Your task to perform on an android device: turn notification dots on Image 0: 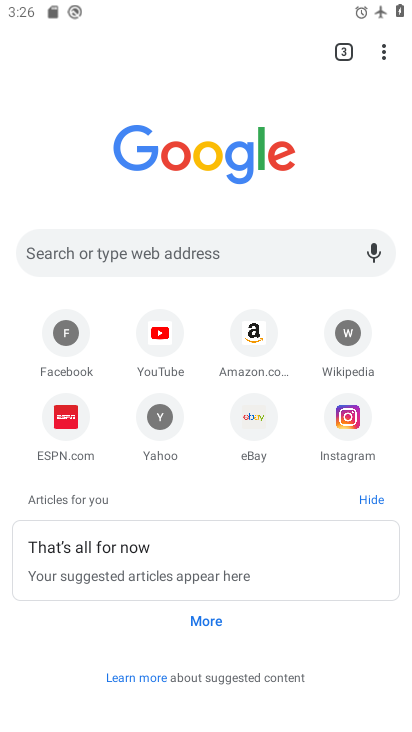
Step 0: press home button
Your task to perform on an android device: turn notification dots on Image 1: 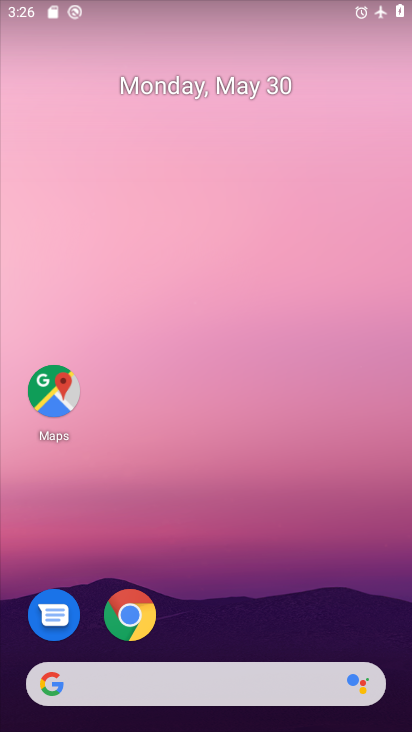
Step 1: drag from (241, 601) to (311, 8)
Your task to perform on an android device: turn notification dots on Image 2: 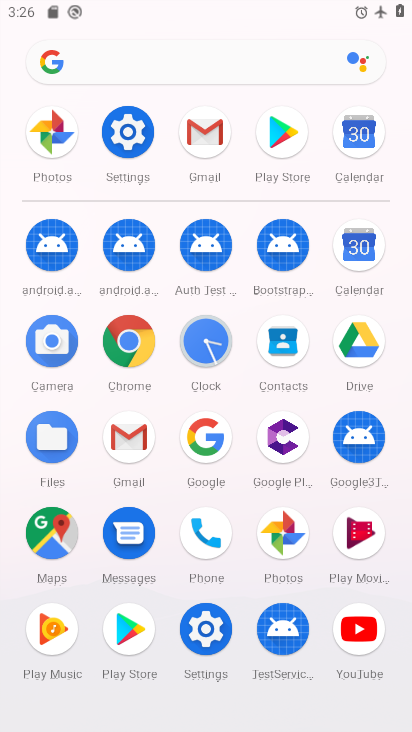
Step 2: click (136, 115)
Your task to perform on an android device: turn notification dots on Image 3: 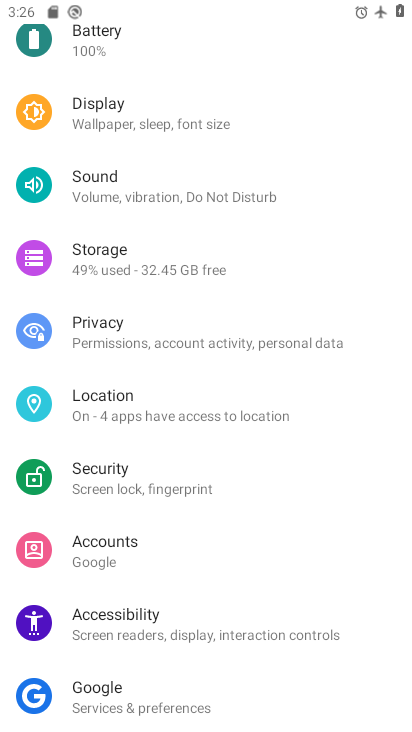
Step 3: drag from (178, 330) to (218, 591)
Your task to perform on an android device: turn notification dots on Image 4: 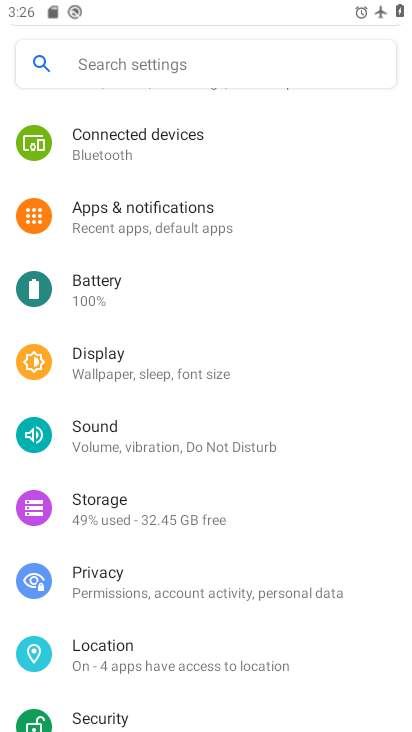
Step 4: click (208, 203)
Your task to perform on an android device: turn notification dots on Image 5: 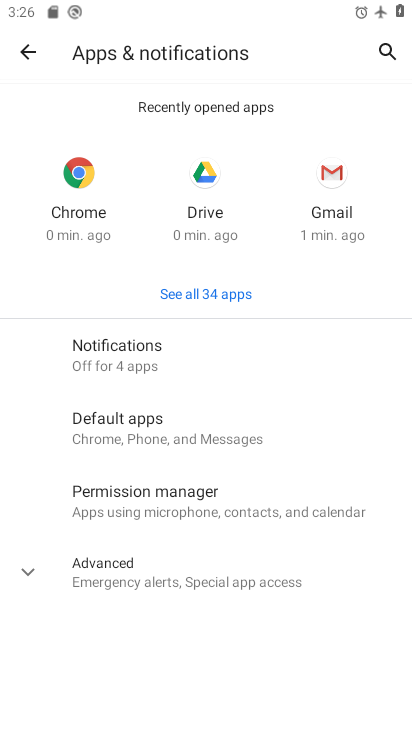
Step 5: click (181, 326)
Your task to perform on an android device: turn notification dots on Image 6: 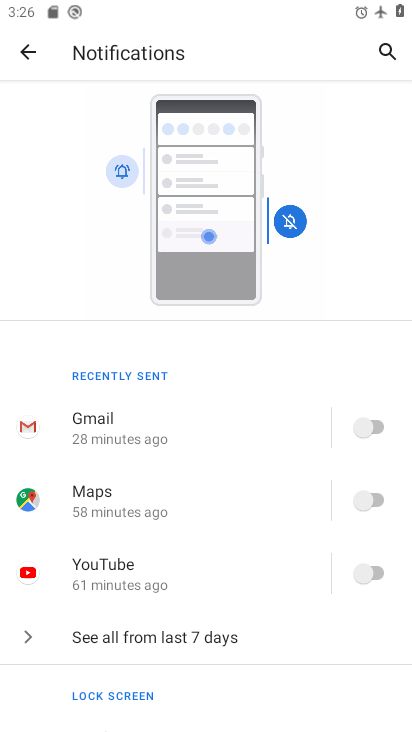
Step 6: drag from (270, 587) to (249, 334)
Your task to perform on an android device: turn notification dots on Image 7: 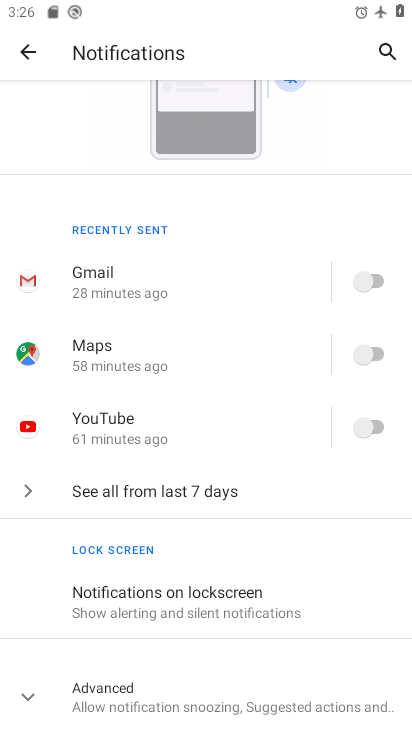
Step 7: click (30, 690)
Your task to perform on an android device: turn notification dots on Image 8: 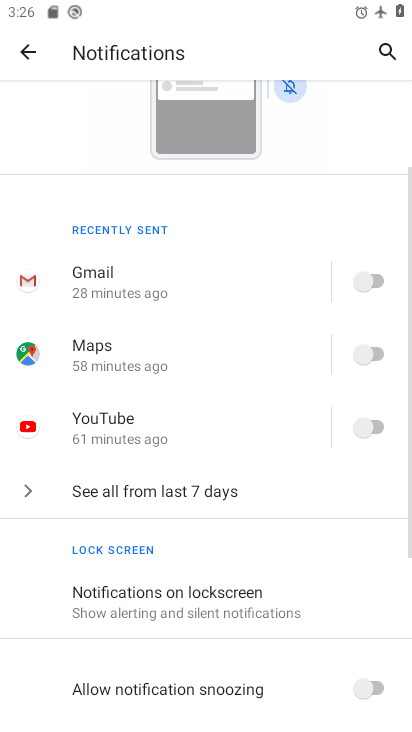
Step 8: drag from (223, 572) to (230, 234)
Your task to perform on an android device: turn notification dots on Image 9: 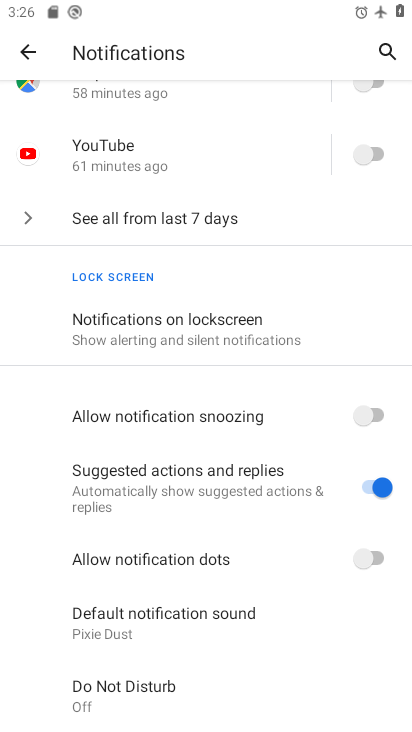
Step 9: click (371, 548)
Your task to perform on an android device: turn notification dots on Image 10: 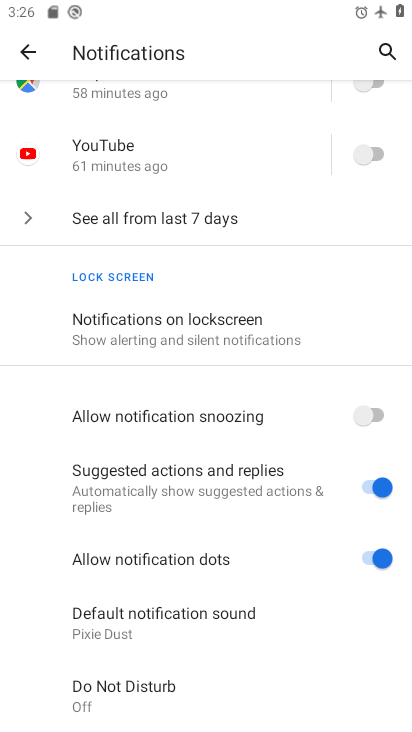
Step 10: task complete